Your task to perform on an android device: toggle data saver in the chrome app Image 0: 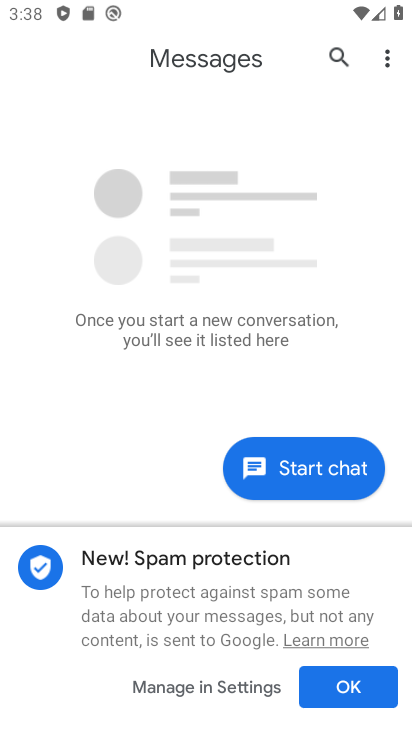
Step 0: press home button
Your task to perform on an android device: toggle data saver in the chrome app Image 1: 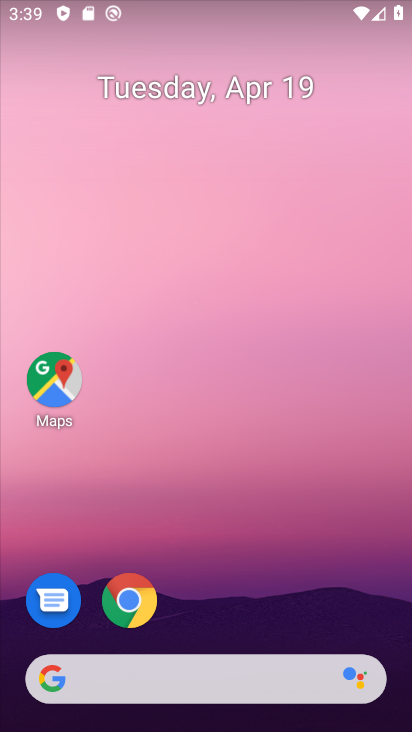
Step 1: click (127, 601)
Your task to perform on an android device: toggle data saver in the chrome app Image 2: 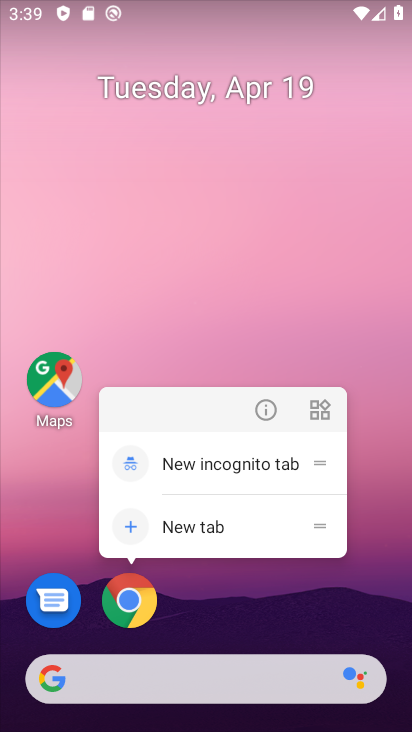
Step 2: click (136, 532)
Your task to perform on an android device: toggle data saver in the chrome app Image 3: 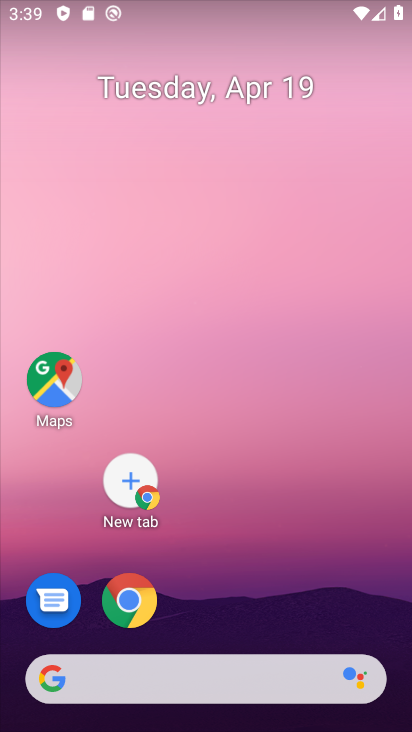
Step 3: click (140, 606)
Your task to perform on an android device: toggle data saver in the chrome app Image 4: 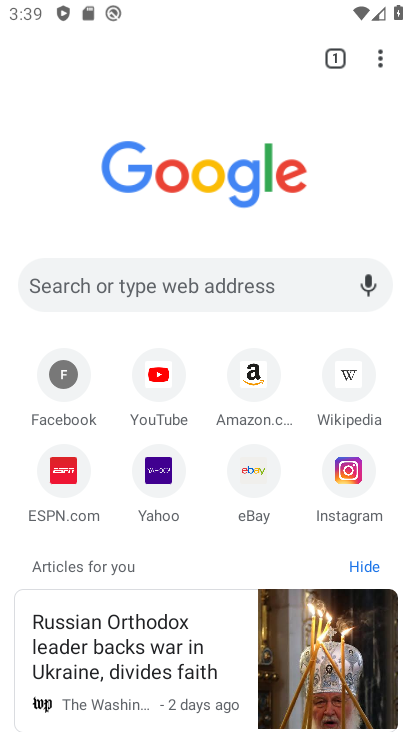
Step 4: click (385, 58)
Your task to perform on an android device: toggle data saver in the chrome app Image 5: 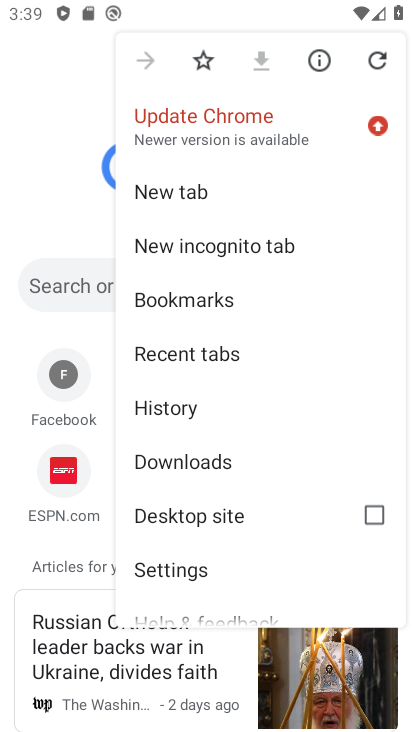
Step 5: click (173, 571)
Your task to perform on an android device: toggle data saver in the chrome app Image 6: 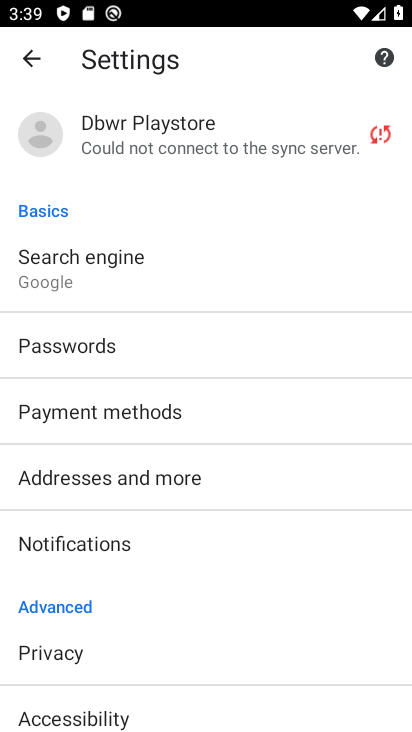
Step 6: drag from (105, 620) to (101, 142)
Your task to perform on an android device: toggle data saver in the chrome app Image 7: 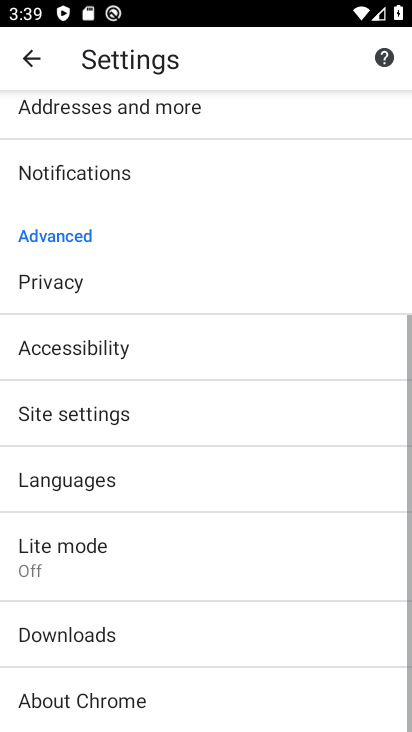
Step 7: click (113, 561)
Your task to perform on an android device: toggle data saver in the chrome app Image 8: 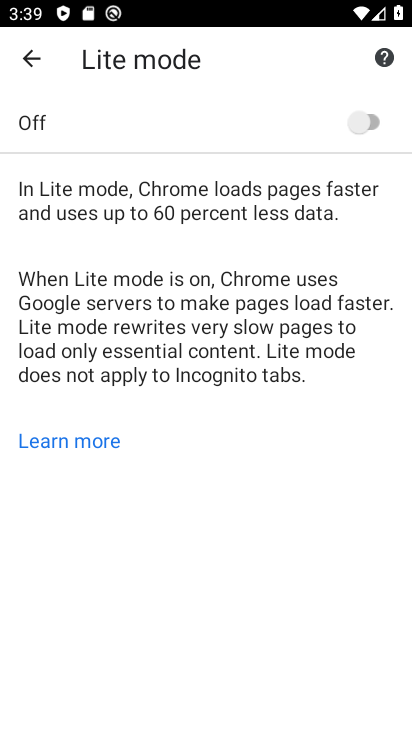
Step 8: click (370, 120)
Your task to perform on an android device: toggle data saver in the chrome app Image 9: 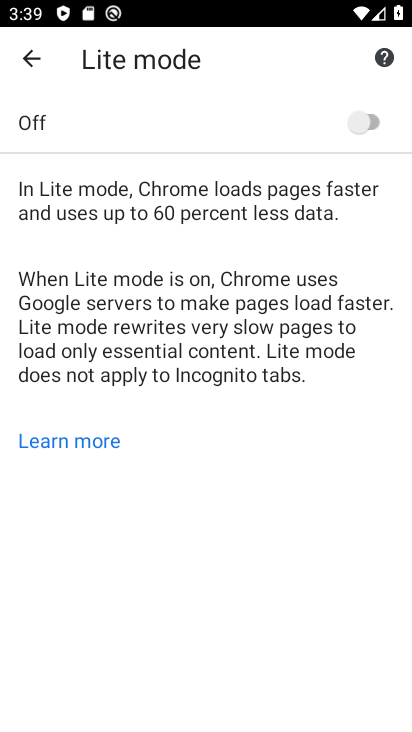
Step 9: click (370, 120)
Your task to perform on an android device: toggle data saver in the chrome app Image 10: 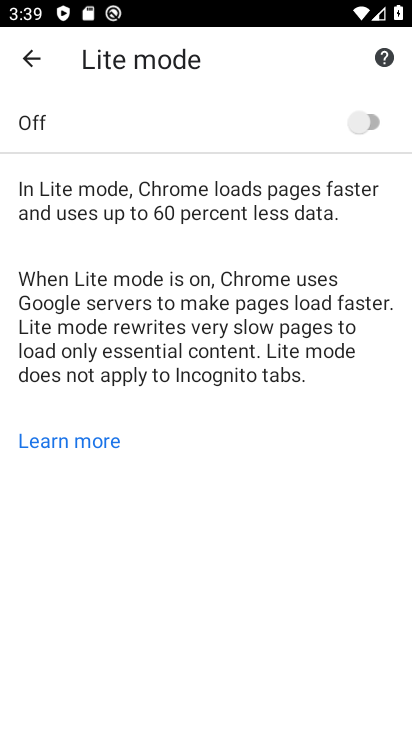
Step 10: task complete